Your task to perform on an android device: turn on data saver in the chrome app Image 0: 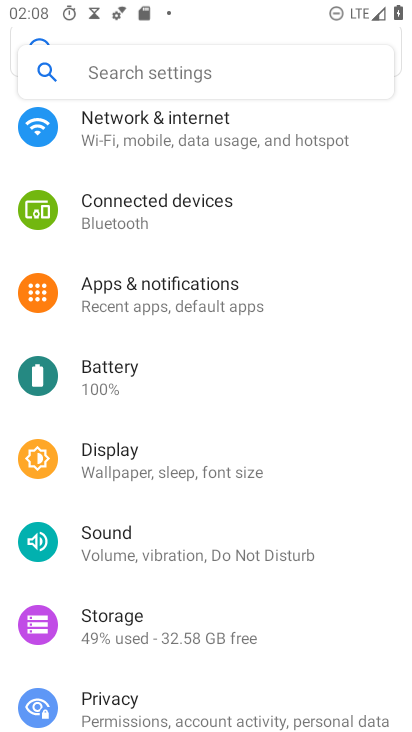
Step 0: press home button
Your task to perform on an android device: turn on data saver in the chrome app Image 1: 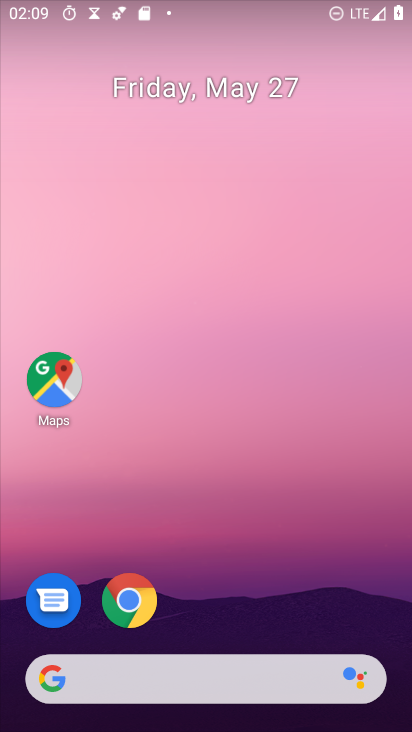
Step 1: click (129, 591)
Your task to perform on an android device: turn on data saver in the chrome app Image 2: 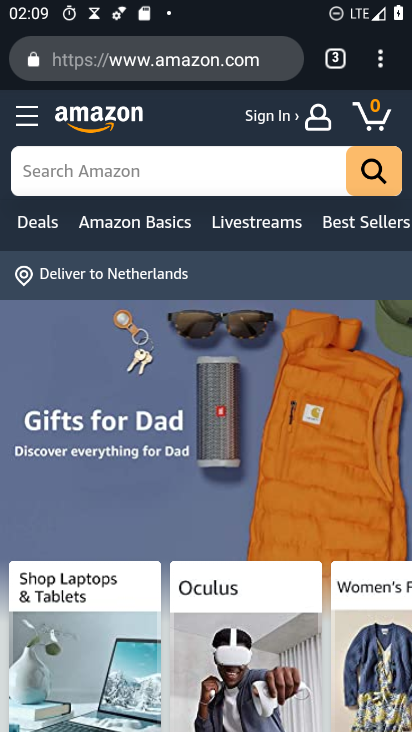
Step 2: click (380, 54)
Your task to perform on an android device: turn on data saver in the chrome app Image 3: 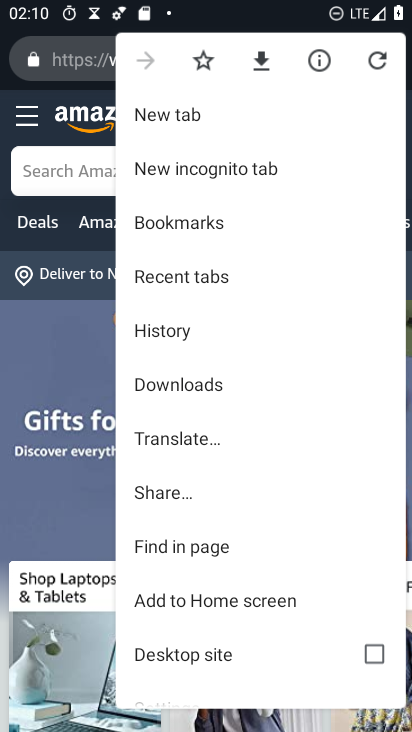
Step 3: drag from (342, 471) to (327, 220)
Your task to perform on an android device: turn on data saver in the chrome app Image 4: 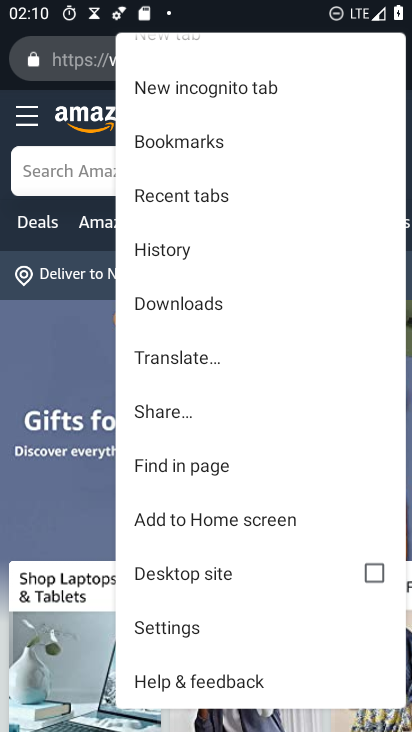
Step 4: click (196, 646)
Your task to perform on an android device: turn on data saver in the chrome app Image 5: 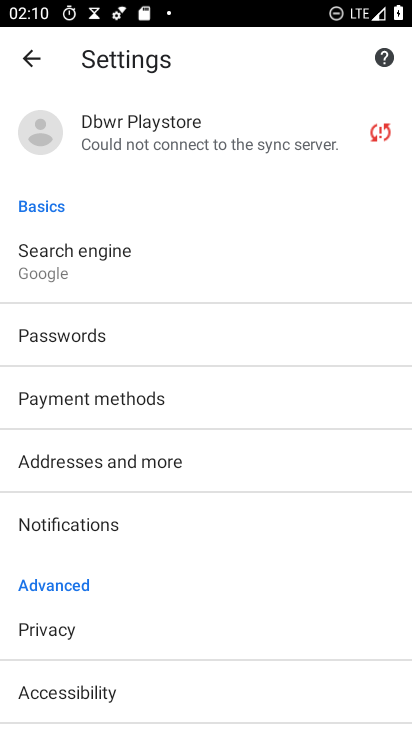
Step 5: drag from (225, 391) to (225, 247)
Your task to perform on an android device: turn on data saver in the chrome app Image 6: 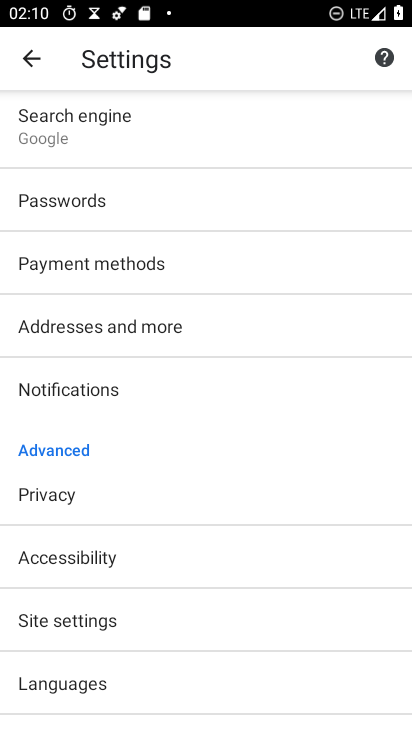
Step 6: drag from (161, 589) to (138, 180)
Your task to perform on an android device: turn on data saver in the chrome app Image 7: 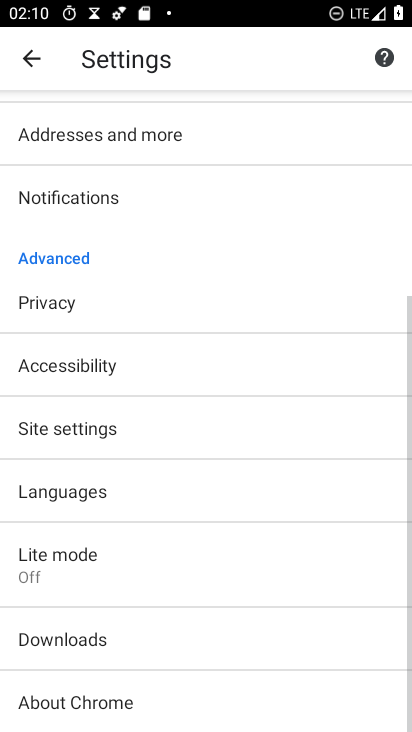
Step 7: drag from (121, 647) to (94, 301)
Your task to perform on an android device: turn on data saver in the chrome app Image 8: 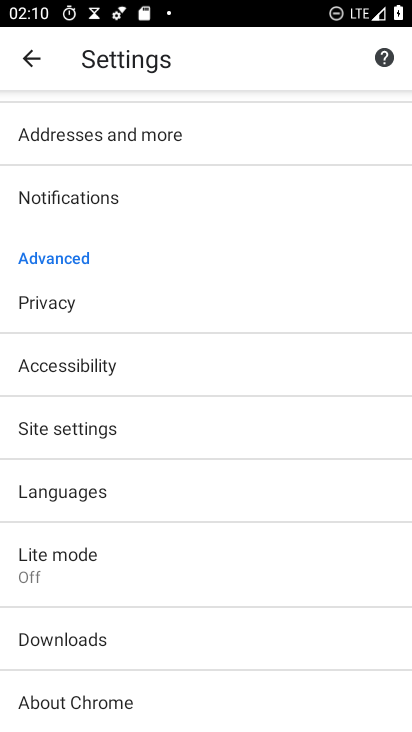
Step 8: click (101, 302)
Your task to perform on an android device: turn on data saver in the chrome app Image 9: 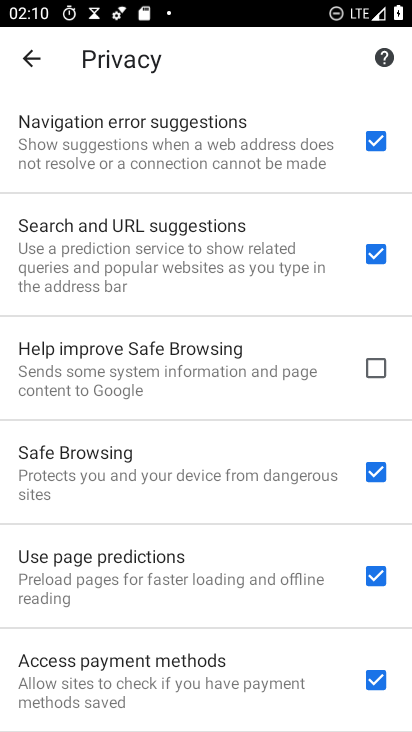
Step 9: drag from (146, 588) to (137, 307)
Your task to perform on an android device: turn on data saver in the chrome app Image 10: 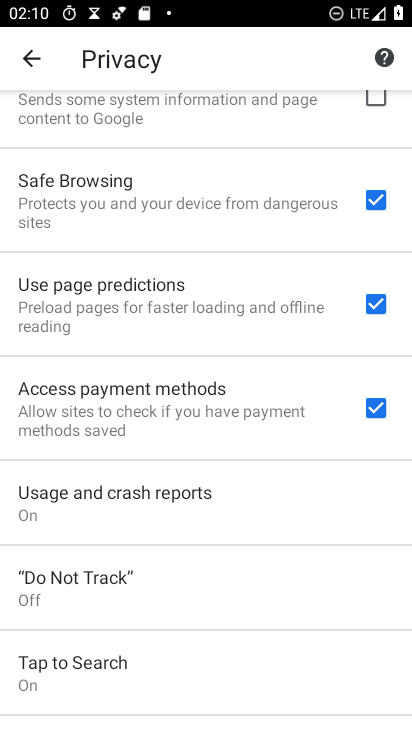
Step 10: drag from (157, 580) to (156, 239)
Your task to perform on an android device: turn on data saver in the chrome app Image 11: 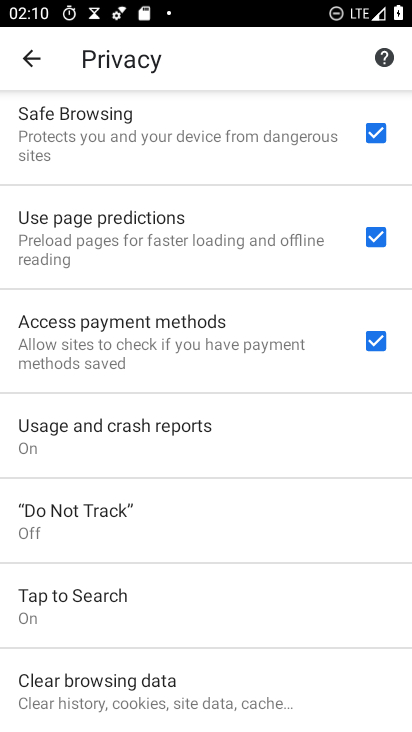
Step 11: press back button
Your task to perform on an android device: turn on data saver in the chrome app Image 12: 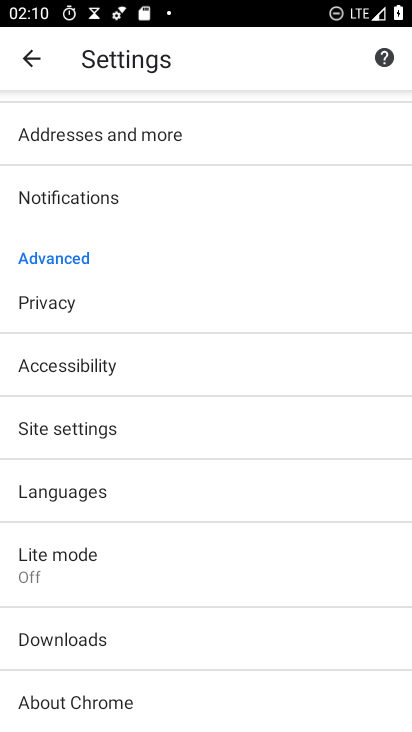
Step 12: click (187, 365)
Your task to perform on an android device: turn on data saver in the chrome app Image 13: 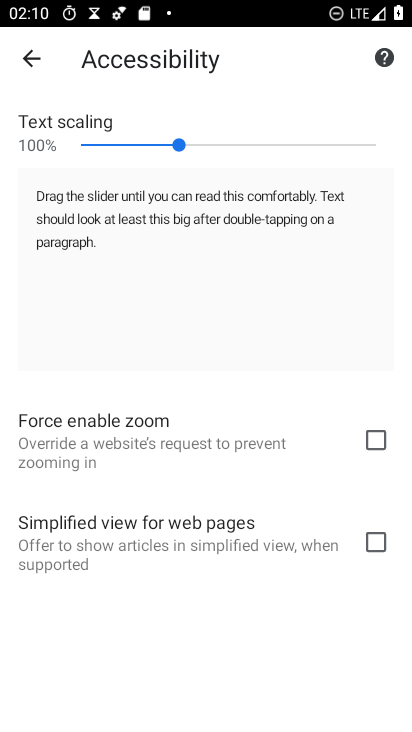
Step 13: press back button
Your task to perform on an android device: turn on data saver in the chrome app Image 14: 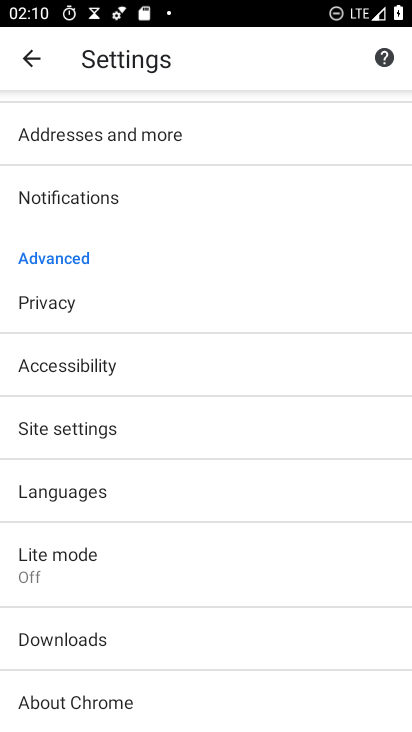
Step 14: click (119, 436)
Your task to perform on an android device: turn on data saver in the chrome app Image 15: 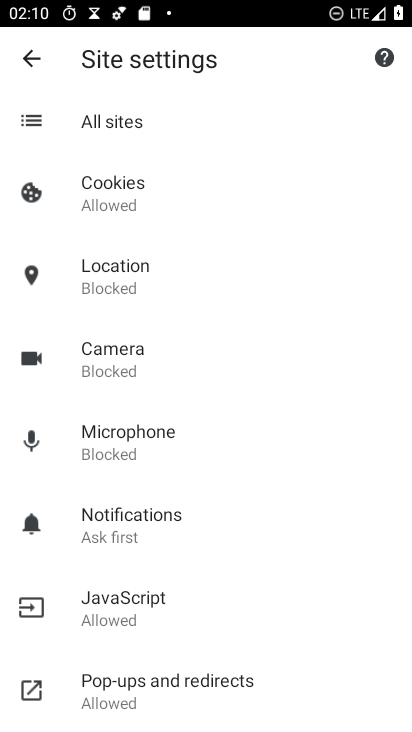
Step 15: task complete